Your task to perform on an android device: open sync settings in chrome Image 0: 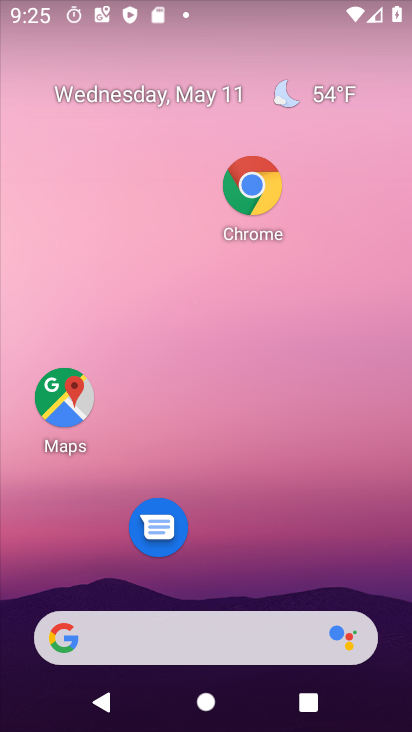
Step 0: click (253, 184)
Your task to perform on an android device: open sync settings in chrome Image 1: 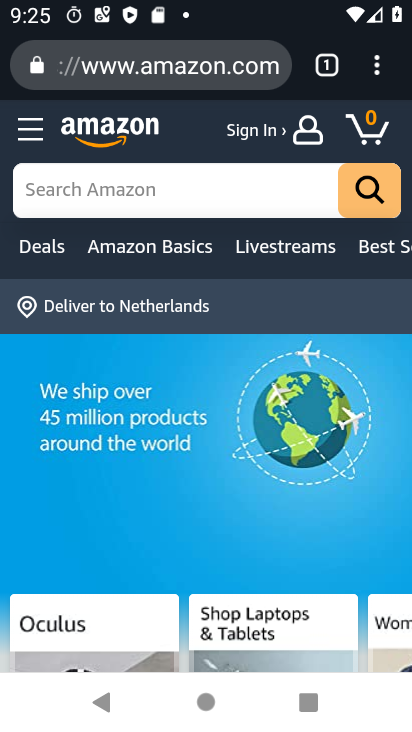
Step 1: click (371, 69)
Your task to perform on an android device: open sync settings in chrome Image 2: 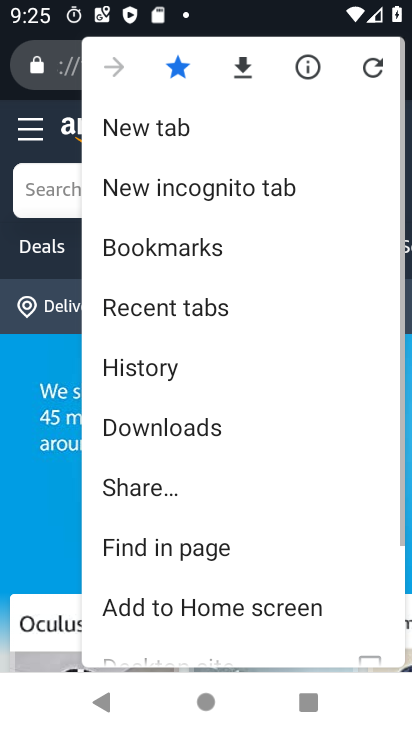
Step 2: drag from (246, 658) to (215, 191)
Your task to perform on an android device: open sync settings in chrome Image 3: 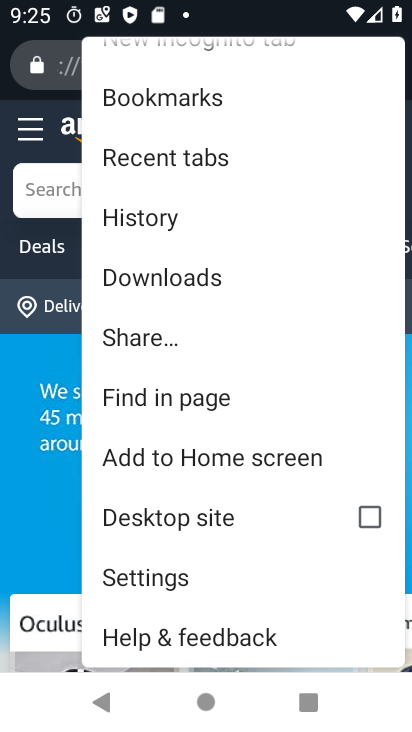
Step 3: click (177, 578)
Your task to perform on an android device: open sync settings in chrome Image 4: 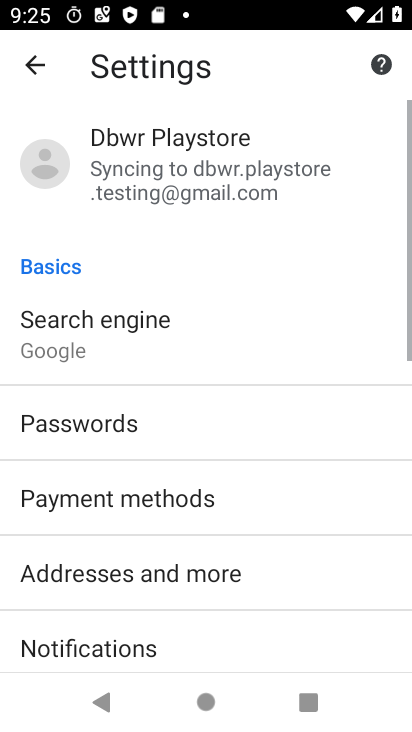
Step 4: drag from (259, 572) to (219, 175)
Your task to perform on an android device: open sync settings in chrome Image 5: 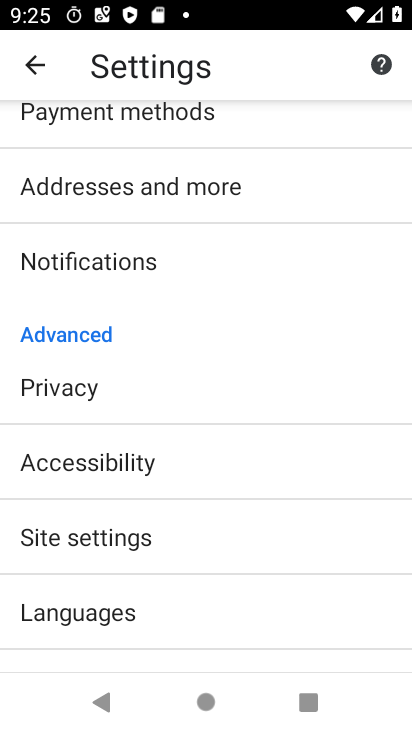
Step 5: drag from (177, 598) to (193, 446)
Your task to perform on an android device: open sync settings in chrome Image 6: 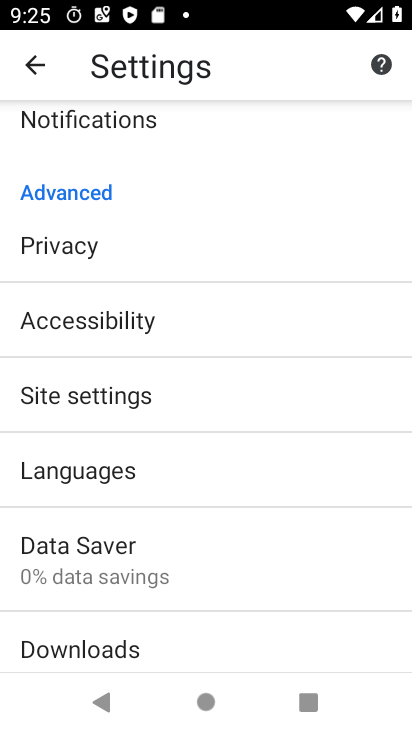
Step 6: click (118, 398)
Your task to perform on an android device: open sync settings in chrome Image 7: 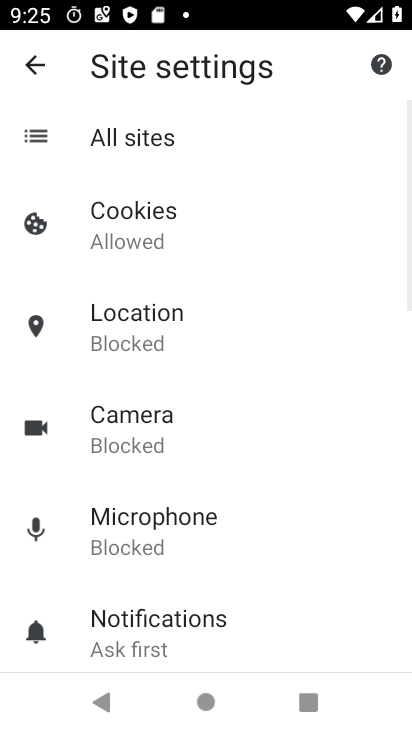
Step 7: drag from (225, 581) to (195, 123)
Your task to perform on an android device: open sync settings in chrome Image 8: 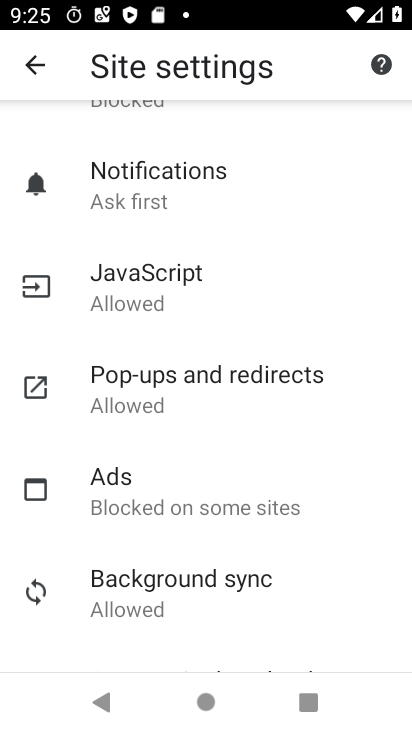
Step 8: click (183, 585)
Your task to perform on an android device: open sync settings in chrome Image 9: 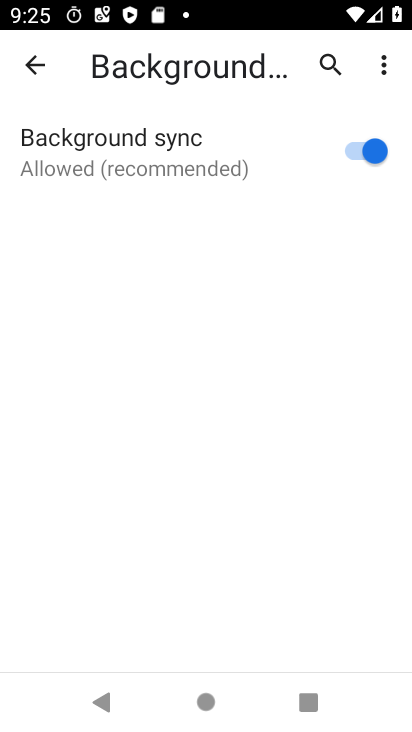
Step 9: task complete